Your task to perform on an android device: Open Google Maps and go to "Timeline" Image 0: 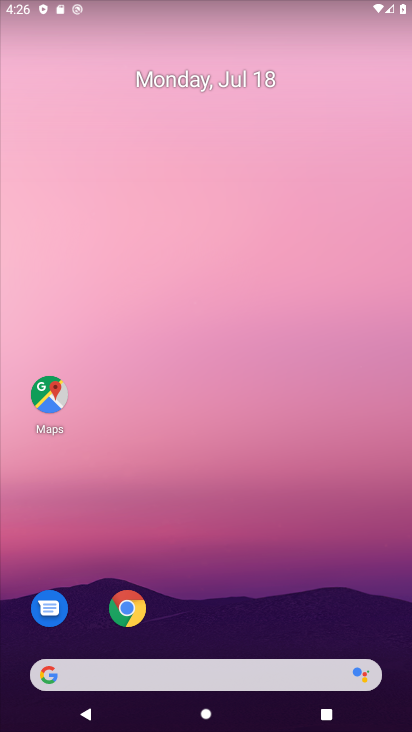
Step 0: click (45, 422)
Your task to perform on an android device: Open Google Maps and go to "Timeline" Image 1: 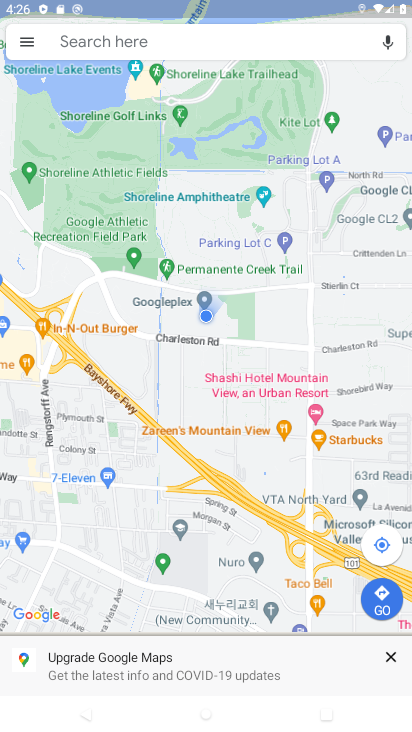
Step 1: click (39, 42)
Your task to perform on an android device: Open Google Maps and go to "Timeline" Image 2: 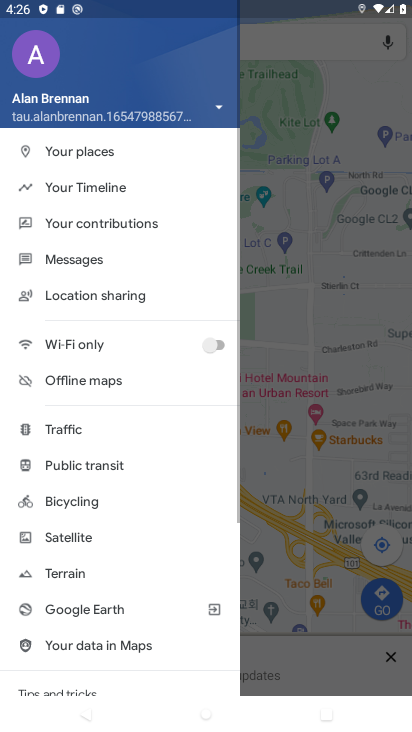
Step 2: click (25, 43)
Your task to perform on an android device: Open Google Maps and go to "Timeline" Image 3: 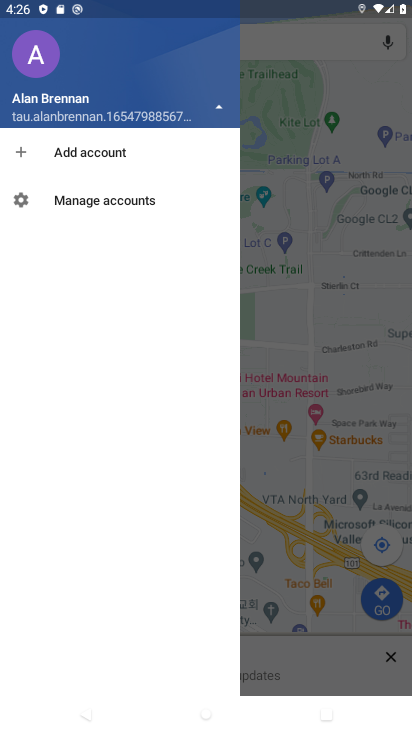
Step 3: click (85, 112)
Your task to perform on an android device: Open Google Maps and go to "Timeline" Image 4: 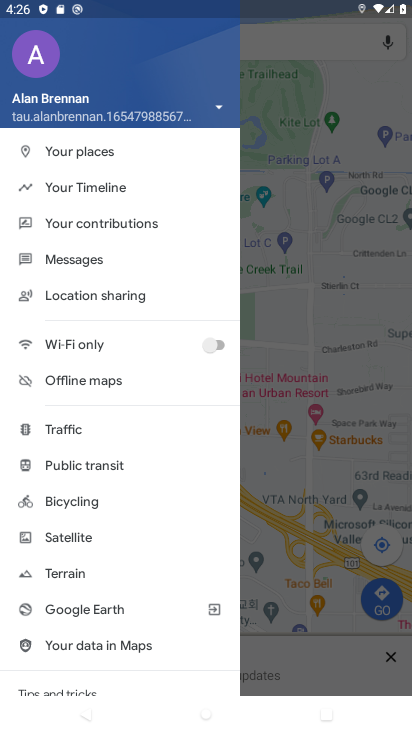
Step 4: click (90, 189)
Your task to perform on an android device: Open Google Maps and go to "Timeline" Image 5: 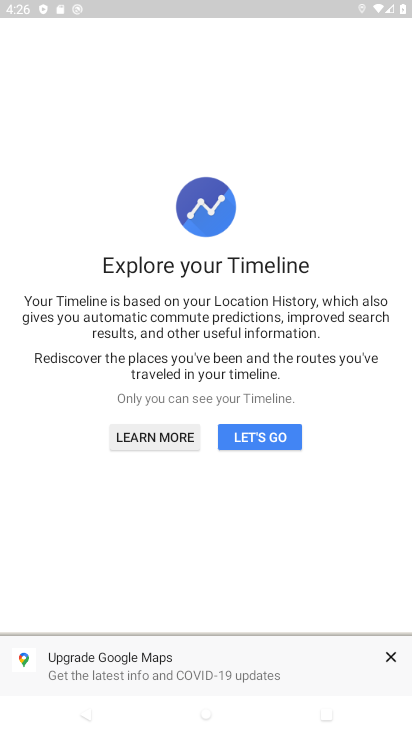
Step 5: task complete